Your task to perform on an android device: change notification settings in the gmail app Image 0: 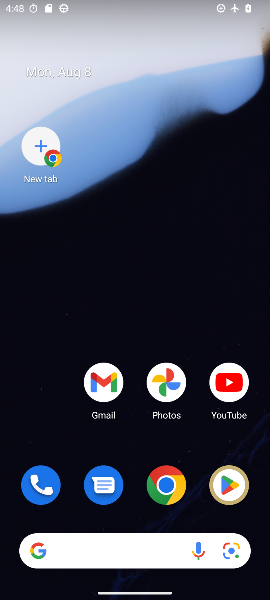
Step 0: drag from (184, 462) to (142, 129)
Your task to perform on an android device: change notification settings in the gmail app Image 1: 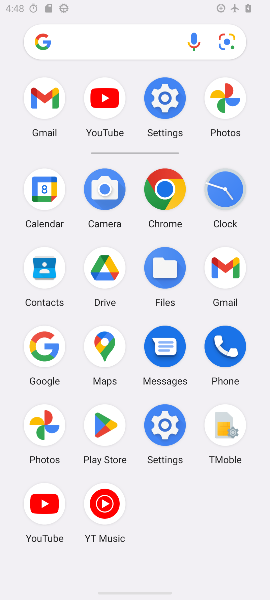
Step 1: drag from (173, 357) to (135, 75)
Your task to perform on an android device: change notification settings in the gmail app Image 2: 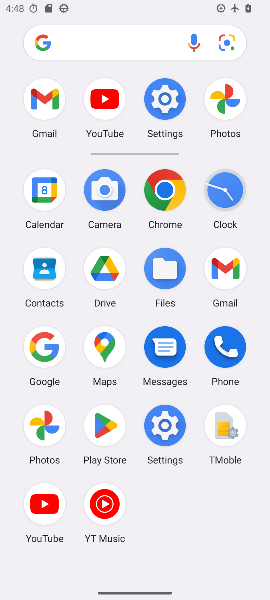
Step 2: click (203, 266)
Your task to perform on an android device: change notification settings in the gmail app Image 3: 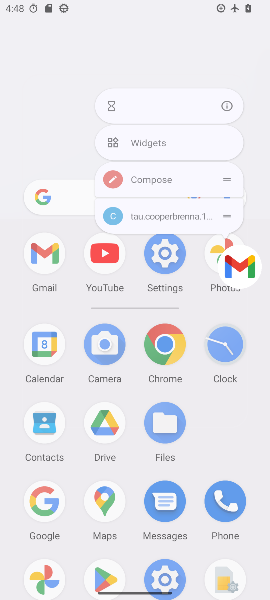
Step 3: click (219, 264)
Your task to perform on an android device: change notification settings in the gmail app Image 4: 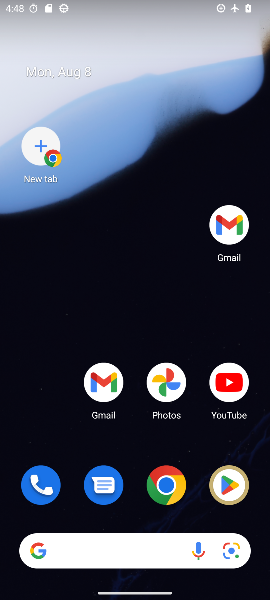
Step 4: click (218, 259)
Your task to perform on an android device: change notification settings in the gmail app Image 5: 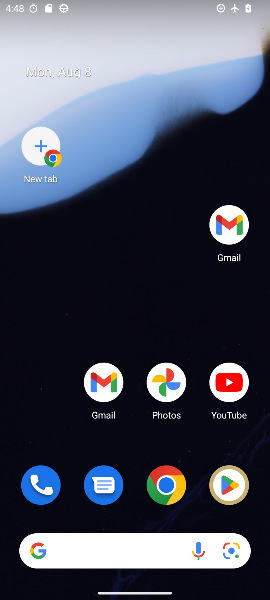
Step 5: click (218, 258)
Your task to perform on an android device: change notification settings in the gmail app Image 6: 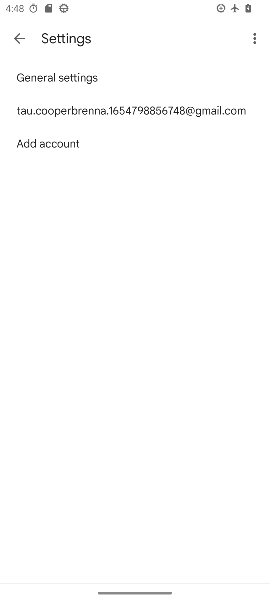
Step 6: click (50, 114)
Your task to perform on an android device: change notification settings in the gmail app Image 7: 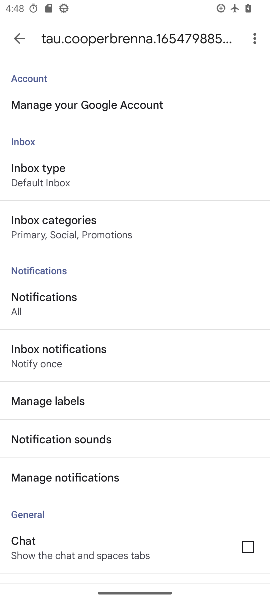
Step 7: click (40, 289)
Your task to perform on an android device: change notification settings in the gmail app Image 8: 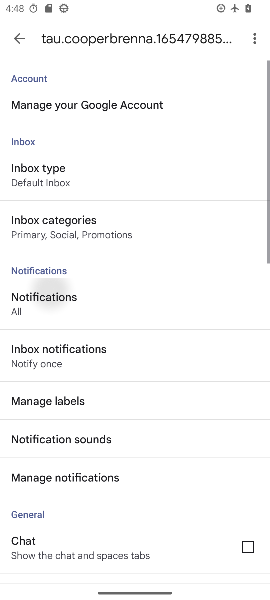
Step 8: click (39, 289)
Your task to perform on an android device: change notification settings in the gmail app Image 9: 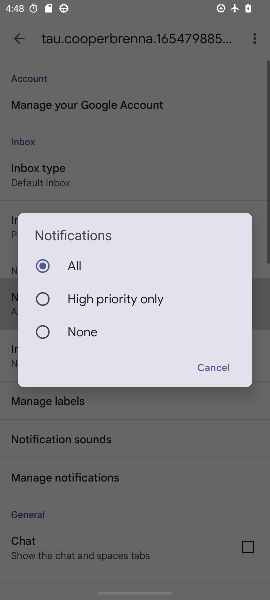
Step 9: click (45, 292)
Your task to perform on an android device: change notification settings in the gmail app Image 10: 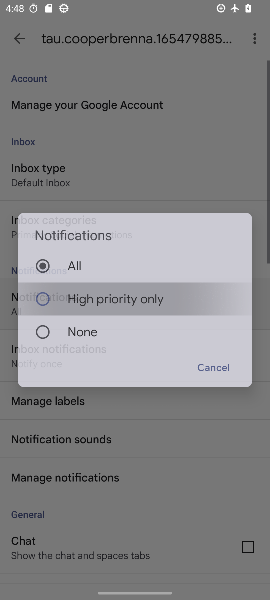
Step 10: click (49, 294)
Your task to perform on an android device: change notification settings in the gmail app Image 11: 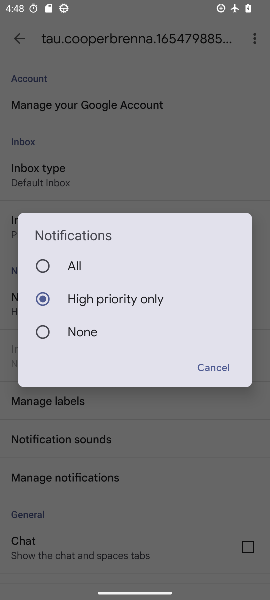
Step 11: click (39, 261)
Your task to perform on an android device: change notification settings in the gmail app Image 12: 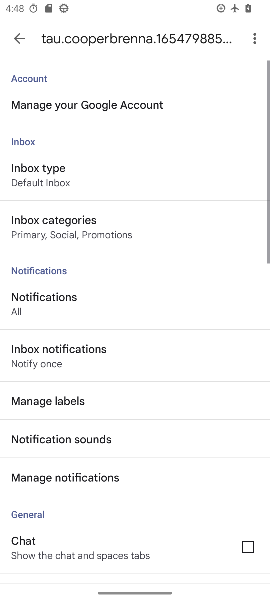
Step 12: task complete